Your task to perform on an android device: Go to accessibility settings Image 0: 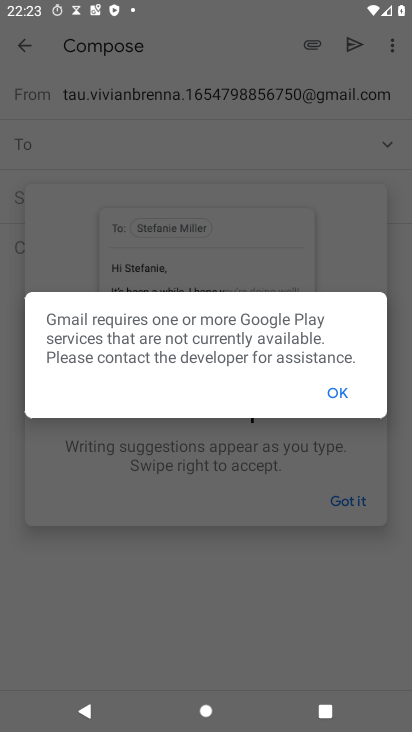
Step 0: press home button
Your task to perform on an android device: Go to accessibility settings Image 1: 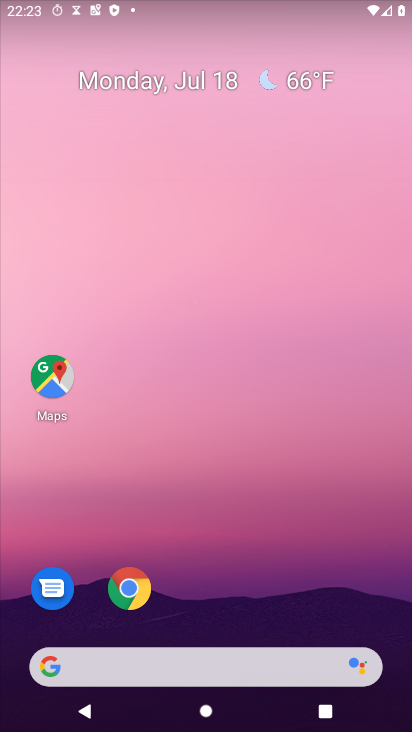
Step 1: drag from (246, 657) to (349, 188)
Your task to perform on an android device: Go to accessibility settings Image 2: 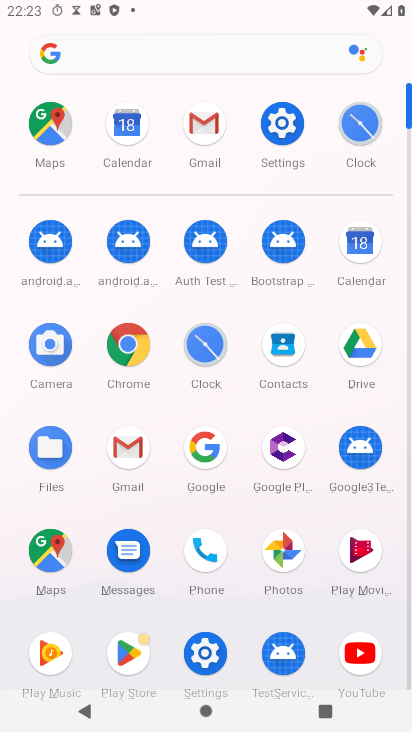
Step 2: click (281, 116)
Your task to perform on an android device: Go to accessibility settings Image 3: 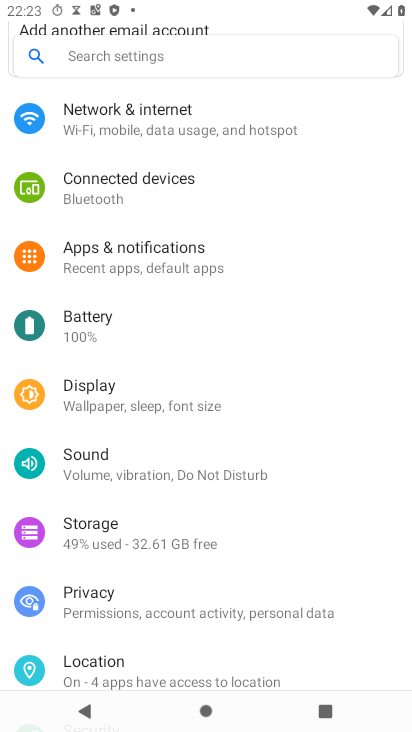
Step 3: drag from (354, 652) to (408, 244)
Your task to perform on an android device: Go to accessibility settings Image 4: 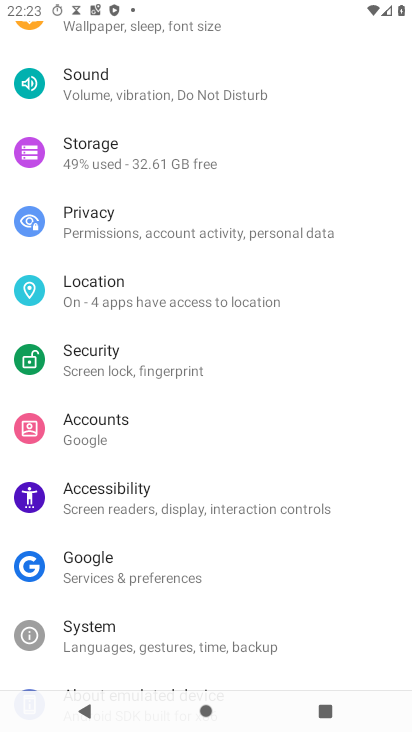
Step 4: click (130, 498)
Your task to perform on an android device: Go to accessibility settings Image 5: 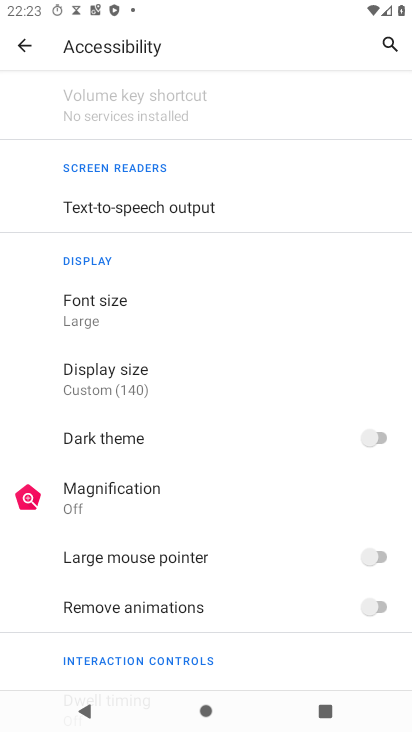
Step 5: task complete